Your task to perform on an android device: refresh tabs in the chrome app Image 0: 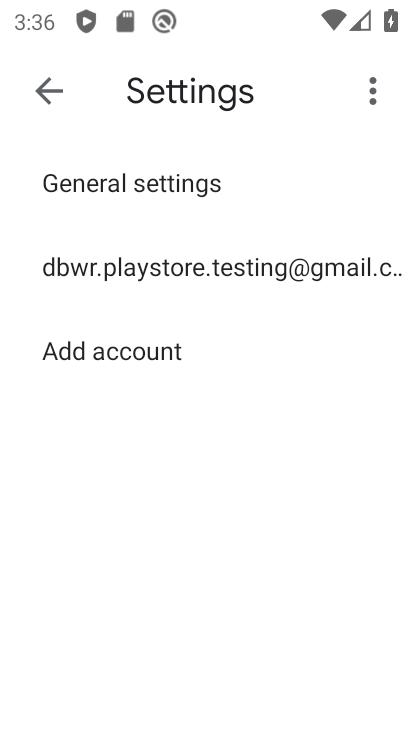
Step 0: press home button
Your task to perform on an android device: refresh tabs in the chrome app Image 1: 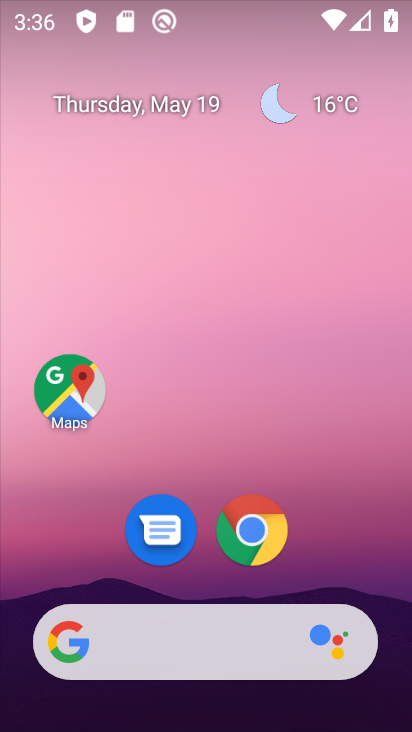
Step 1: drag from (327, 569) to (378, 238)
Your task to perform on an android device: refresh tabs in the chrome app Image 2: 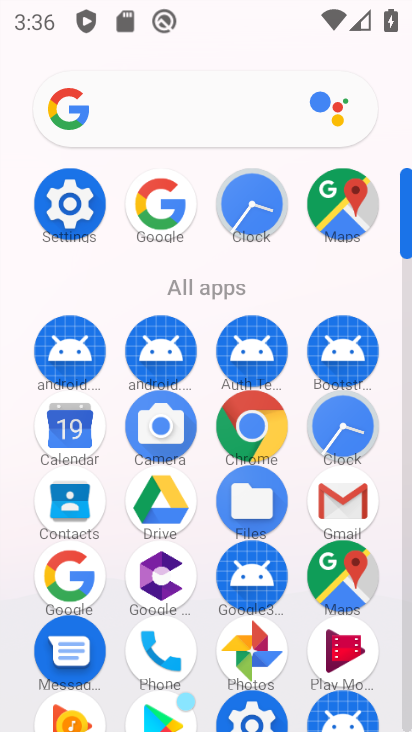
Step 2: click (240, 436)
Your task to perform on an android device: refresh tabs in the chrome app Image 3: 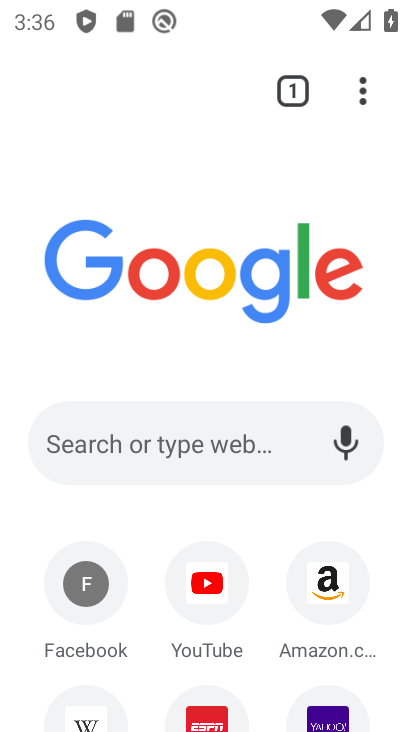
Step 3: drag from (360, 95) to (200, 105)
Your task to perform on an android device: refresh tabs in the chrome app Image 4: 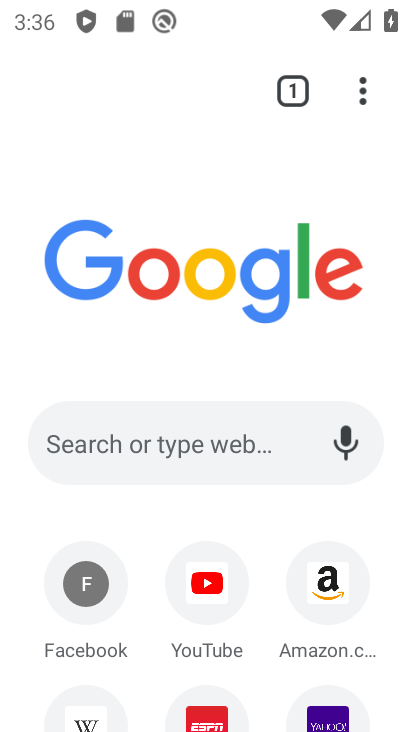
Step 4: click (351, 98)
Your task to perform on an android device: refresh tabs in the chrome app Image 5: 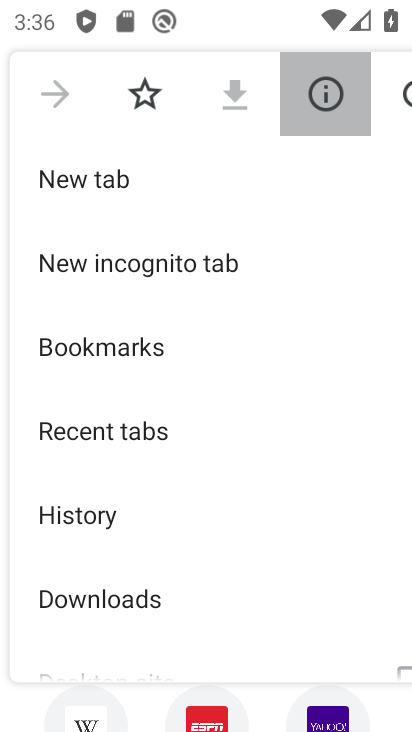
Step 5: drag from (368, 90) to (217, 110)
Your task to perform on an android device: refresh tabs in the chrome app Image 6: 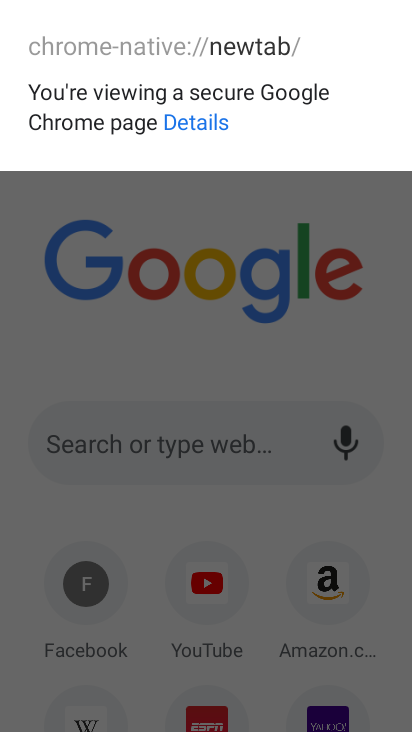
Step 6: click (120, 355)
Your task to perform on an android device: refresh tabs in the chrome app Image 7: 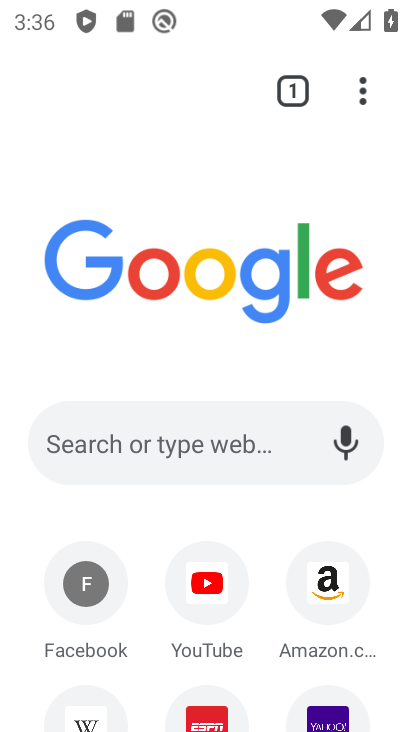
Step 7: task complete